Your task to perform on an android device: Open settings Image 0: 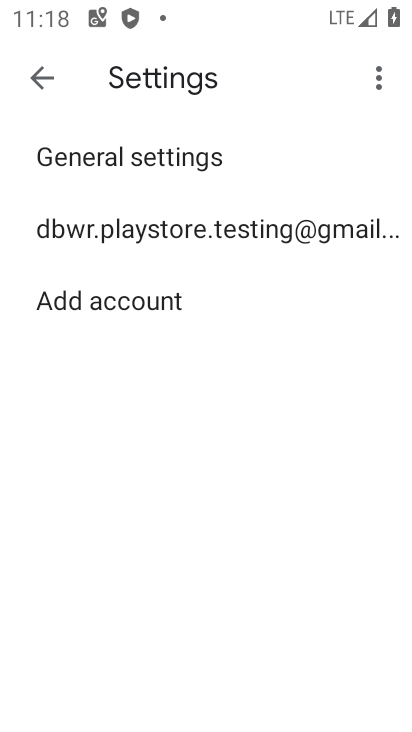
Step 0: press home button
Your task to perform on an android device: Open settings Image 1: 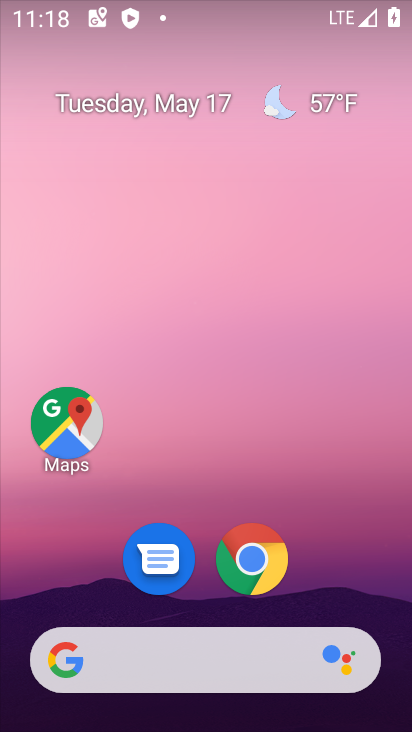
Step 1: drag from (363, 567) to (283, 10)
Your task to perform on an android device: Open settings Image 2: 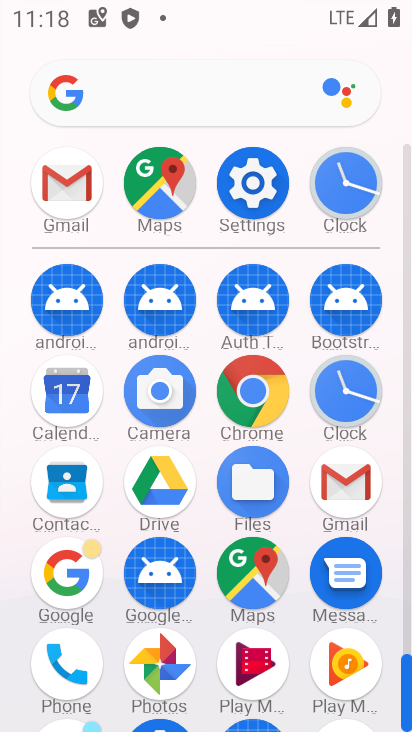
Step 2: click (252, 183)
Your task to perform on an android device: Open settings Image 3: 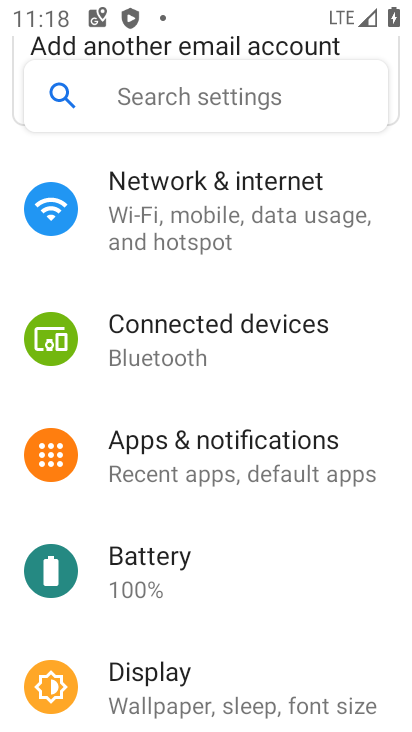
Step 3: task complete